Your task to perform on an android device: turn off location Image 0: 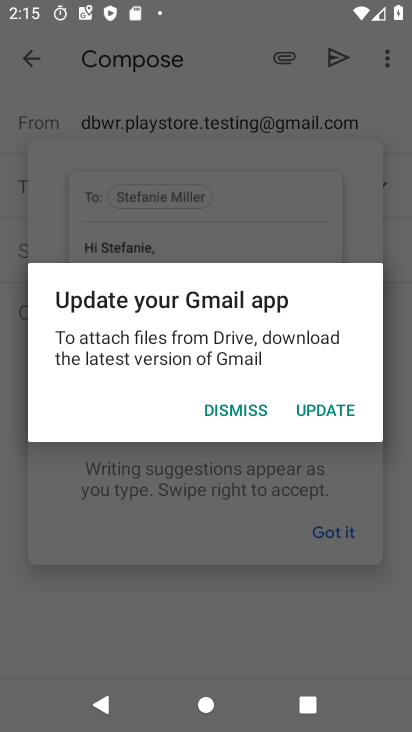
Step 0: press home button
Your task to perform on an android device: turn off location Image 1: 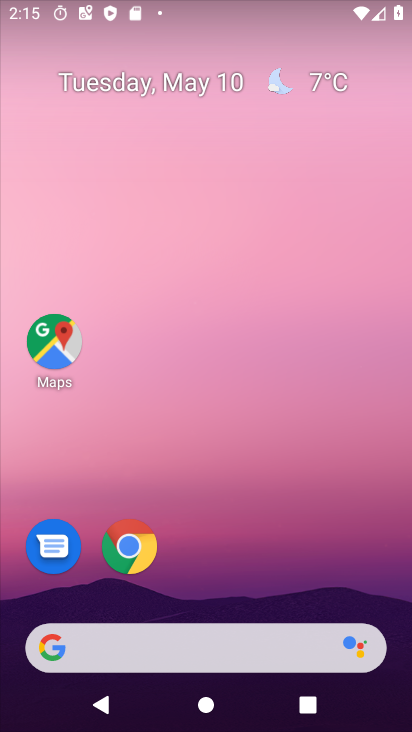
Step 1: drag from (339, 501) to (318, 132)
Your task to perform on an android device: turn off location Image 2: 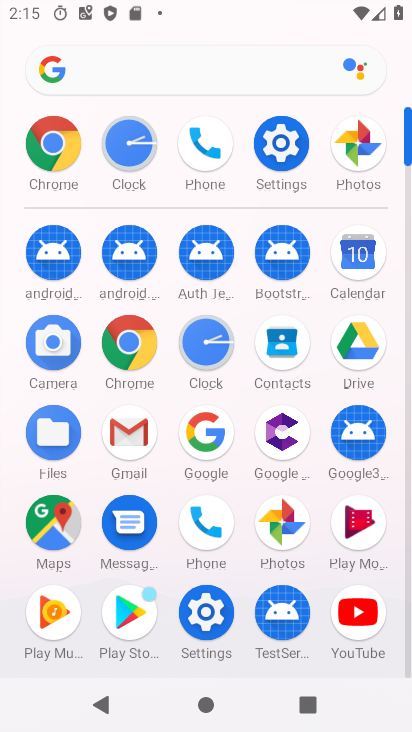
Step 2: click (289, 136)
Your task to perform on an android device: turn off location Image 3: 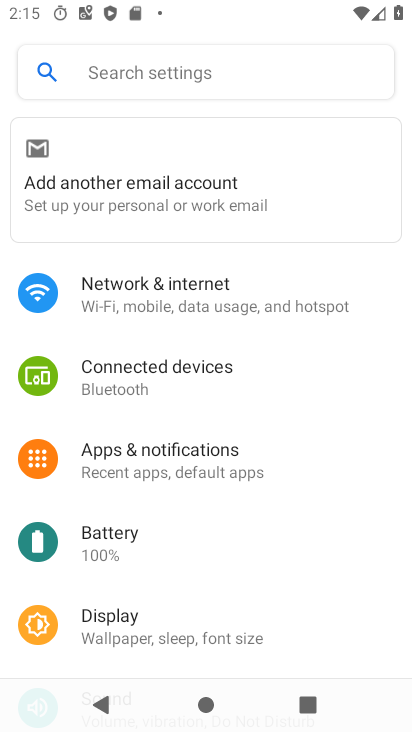
Step 3: drag from (212, 531) to (204, 240)
Your task to perform on an android device: turn off location Image 4: 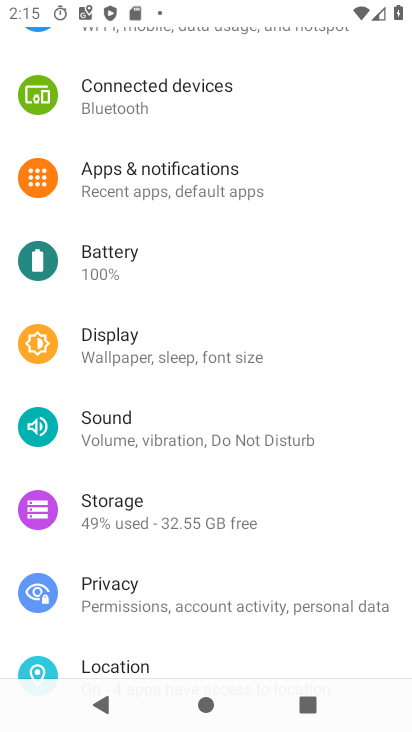
Step 4: drag from (178, 620) to (190, 266)
Your task to perform on an android device: turn off location Image 5: 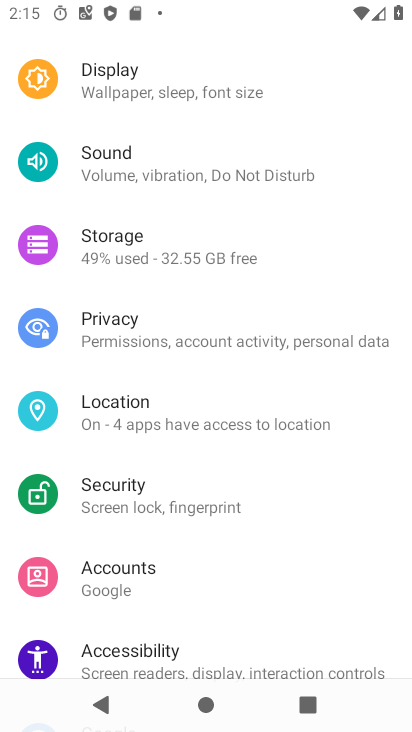
Step 5: click (141, 411)
Your task to perform on an android device: turn off location Image 6: 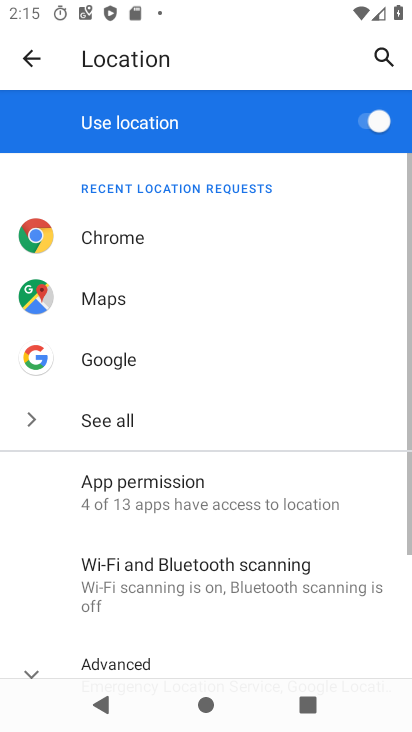
Step 6: click (380, 129)
Your task to perform on an android device: turn off location Image 7: 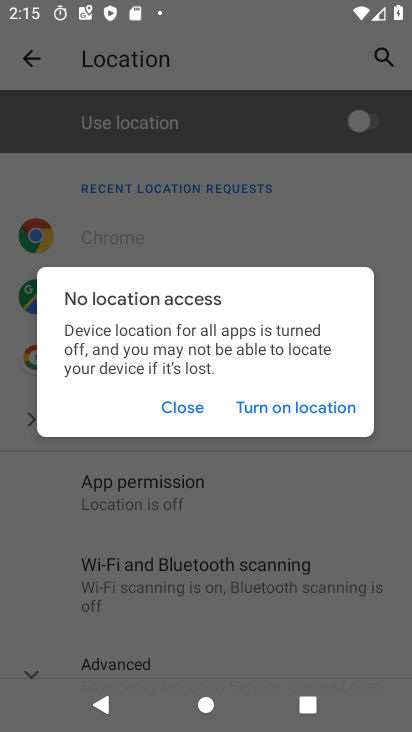
Step 7: task complete